Your task to perform on an android device: Open settings Image 0: 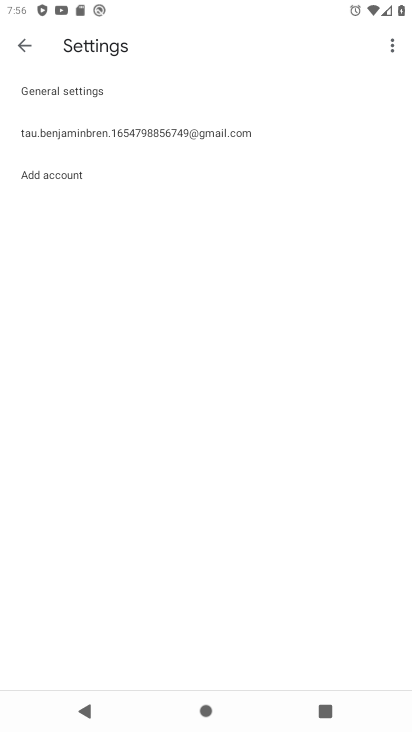
Step 0: press home button
Your task to perform on an android device: Open settings Image 1: 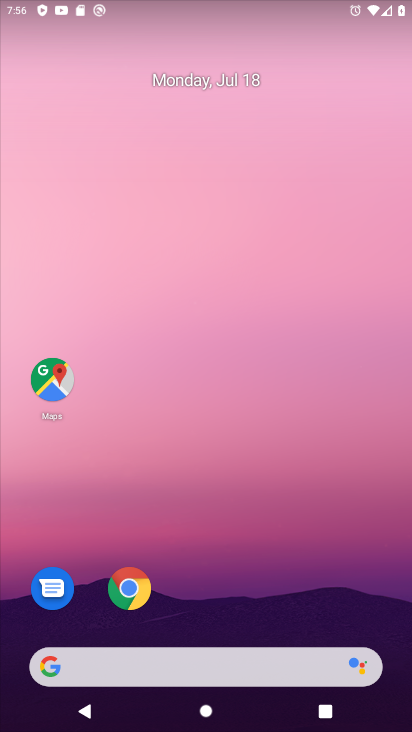
Step 1: drag from (219, 568) to (214, 59)
Your task to perform on an android device: Open settings Image 2: 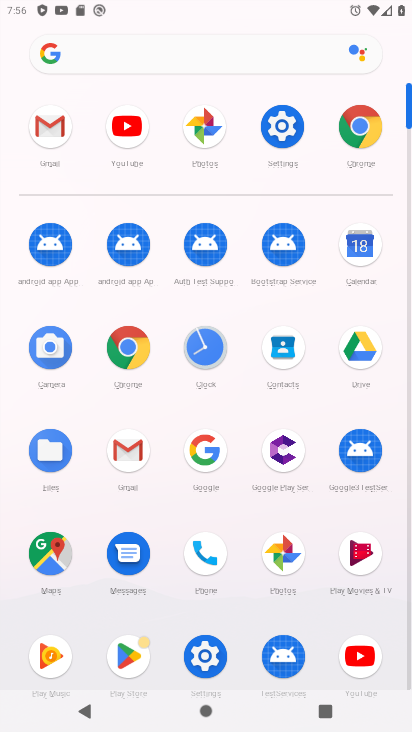
Step 2: click (208, 652)
Your task to perform on an android device: Open settings Image 3: 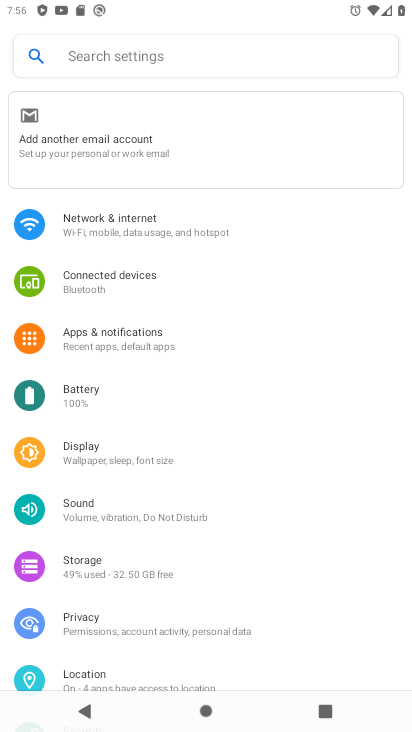
Step 3: task complete